Your task to perform on an android device: Turn on the flashlight Image 0: 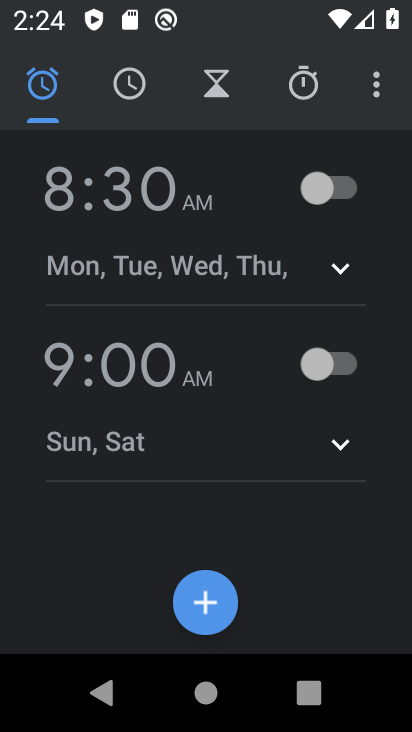
Step 0: press home button
Your task to perform on an android device: Turn on the flashlight Image 1: 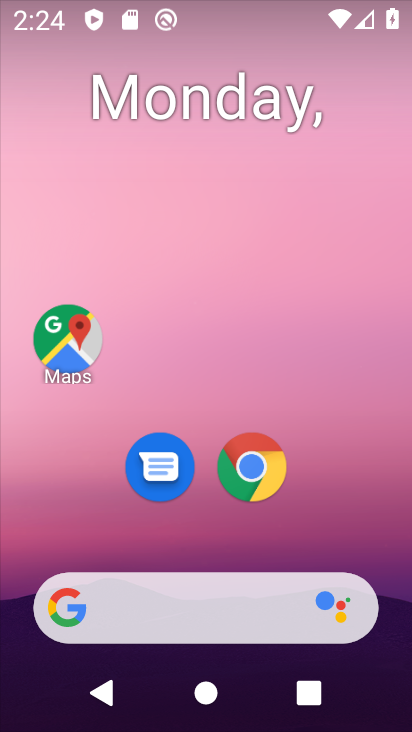
Step 1: drag from (285, 10) to (296, 494)
Your task to perform on an android device: Turn on the flashlight Image 2: 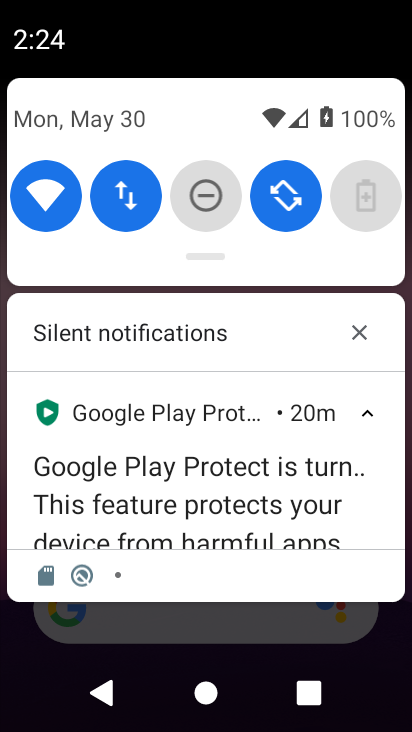
Step 2: drag from (247, 248) to (273, 675)
Your task to perform on an android device: Turn on the flashlight Image 3: 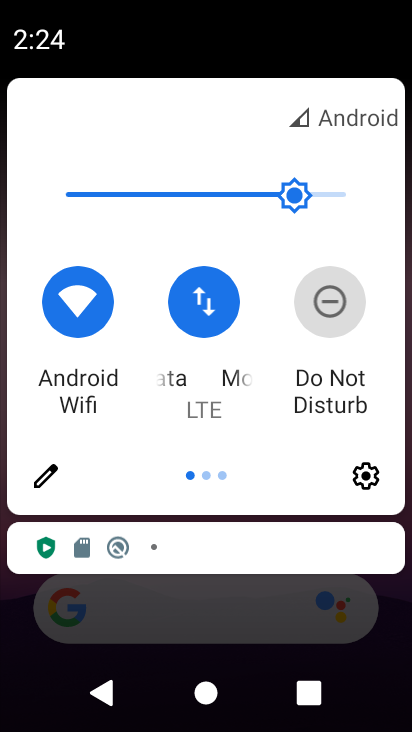
Step 3: click (36, 473)
Your task to perform on an android device: Turn on the flashlight Image 4: 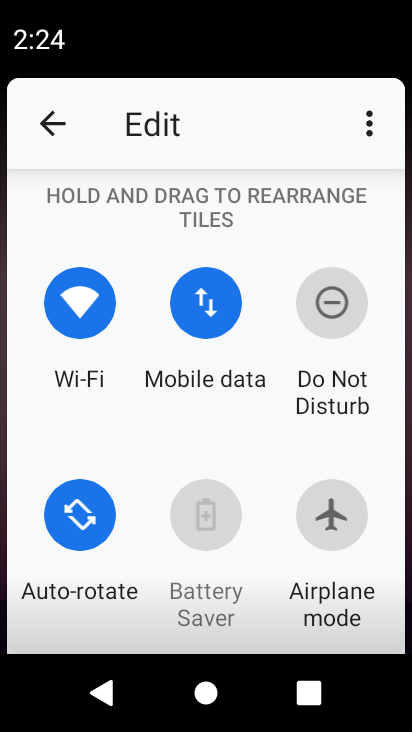
Step 4: task complete